Your task to perform on an android device: When is my next meeting? Image 0: 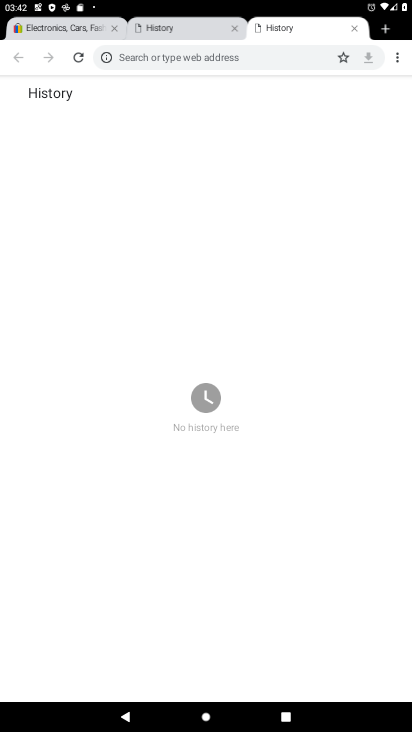
Step 0: press home button
Your task to perform on an android device: When is my next meeting? Image 1: 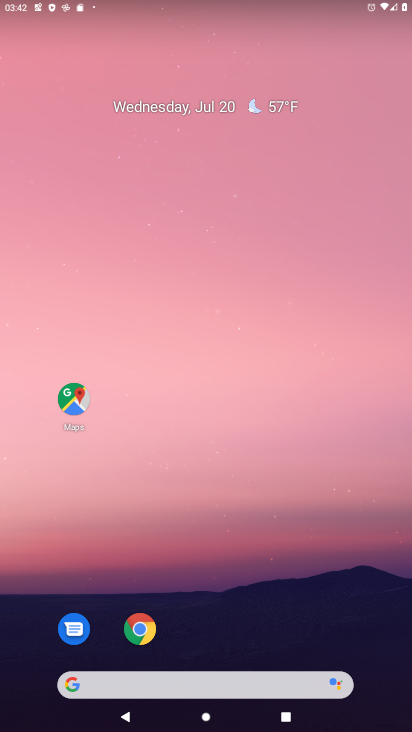
Step 1: drag from (368, 659) to (348, 120)
Your task to perform on an android device: When is my next meeting? Image 2: 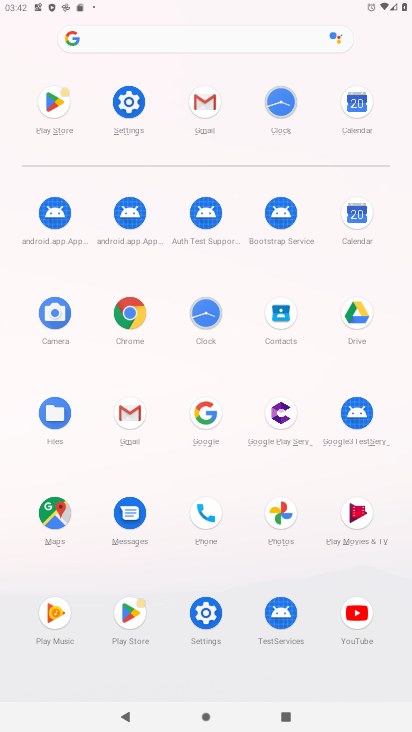
Step 2: click (356, 213)
Your task to perform on an android device: When is my next meeting? Image 3: 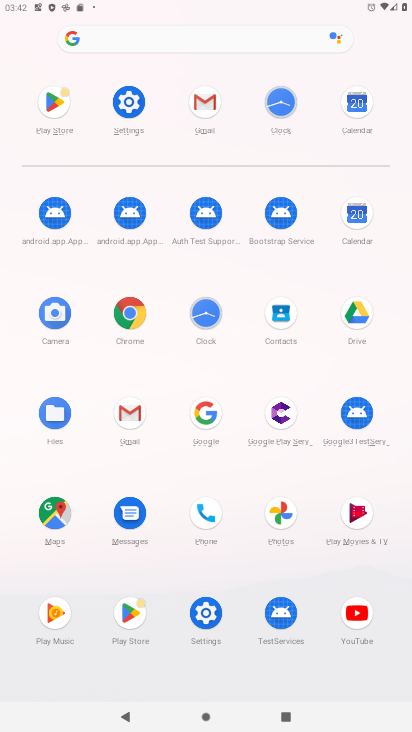
Step 3: click (356, 213)
Your task to perform on an android device: When is my next meeting? Image 4: 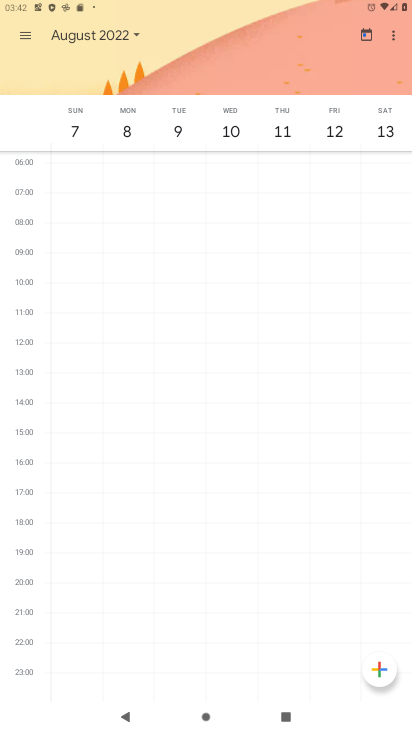
Step 4: click (29, 40)
Your task to perform on an android device: When is my next meeting? Image 5: 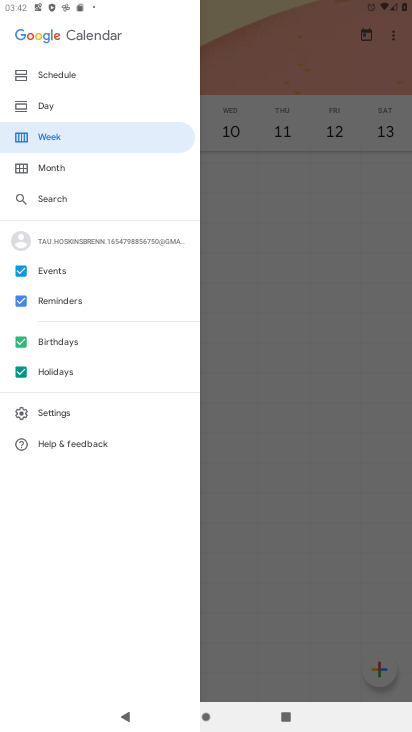
Step 5: click (56, 68)
Your task to perform on an android device: When is my next meeting? Image 6: 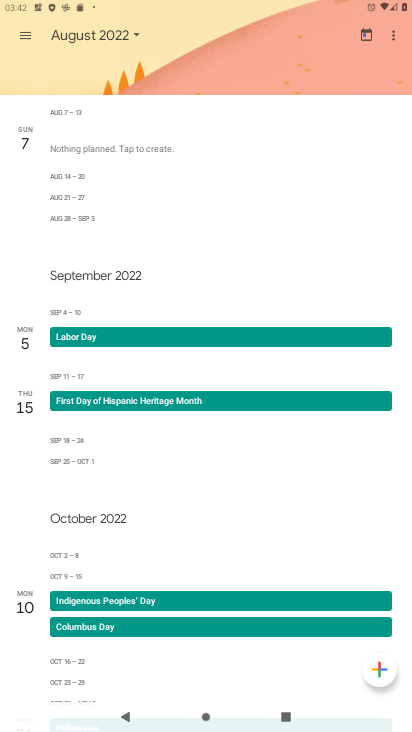
Step 6: click (132, 32)
Your task to perform on an android device: When is my next meeting? Image 7: 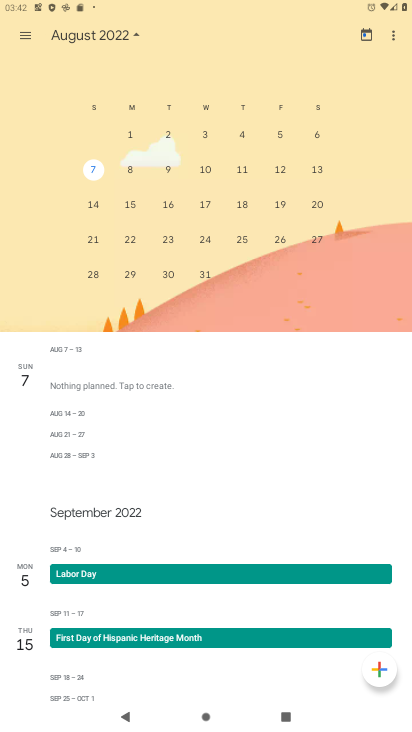
Step 7: click (132, 32)
Your task to perform on an android device: When is my next meeting? Image 8: 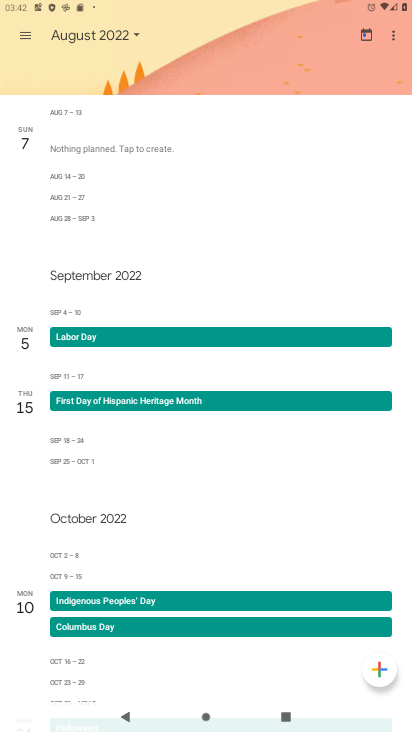
Step 8: task complete